Your task to perform on an android device: Show me productivity apps on the Play Store Image 0: 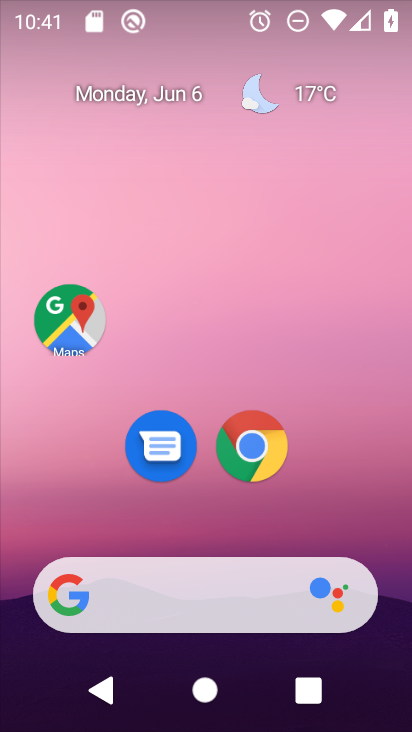
Step 0: drag from (221, 521) to (287, 10)
Your task to perform on an android device: Show me productivity apps on the Play Store Image 1: 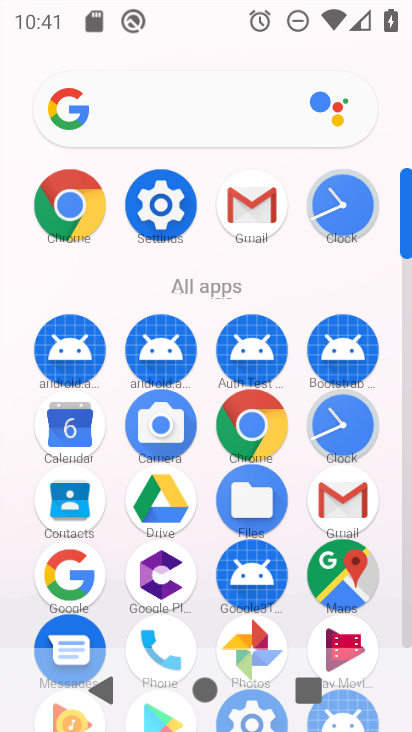
Step 1: drag from (199, 607) to (232, 209)
Your task to perform on an android device: Show me productivity apps on the Play Store Image 2: 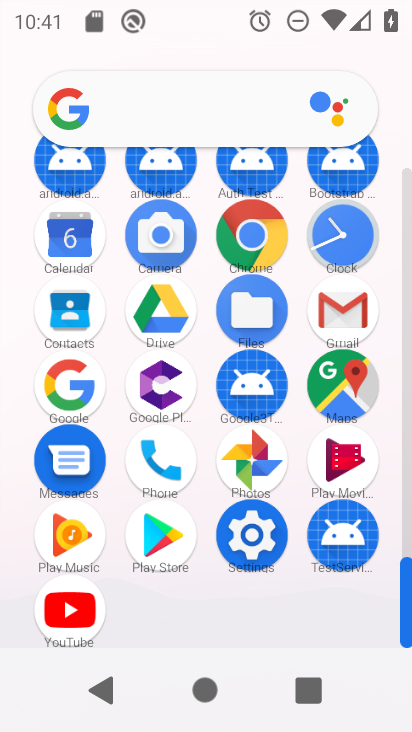
Step 2: click (186, 547)
Your task to perform on an android device: Show me productivity apps on the Play Store Image 3: 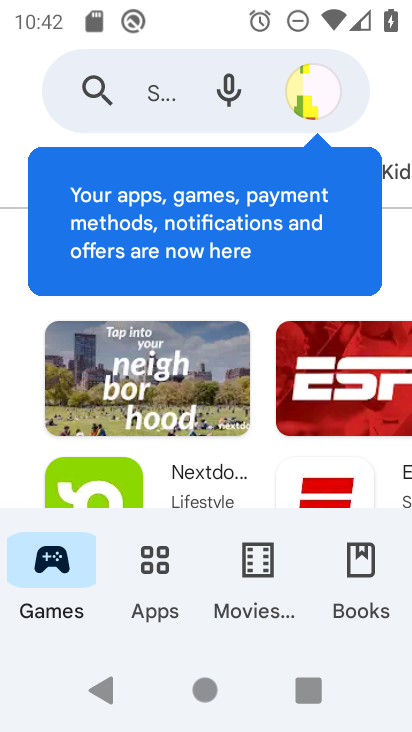
Step 3: click (157, 570)
Your task to perform on an android device: Show me productivity apps on the Play Store Image 4: 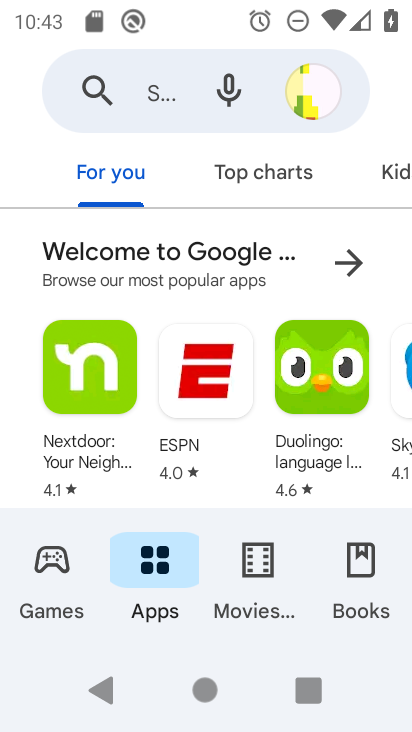
Step 4: click (250, 174)
Your task to perform on an android device: Show me productivity apps on the Play Store Image 5: 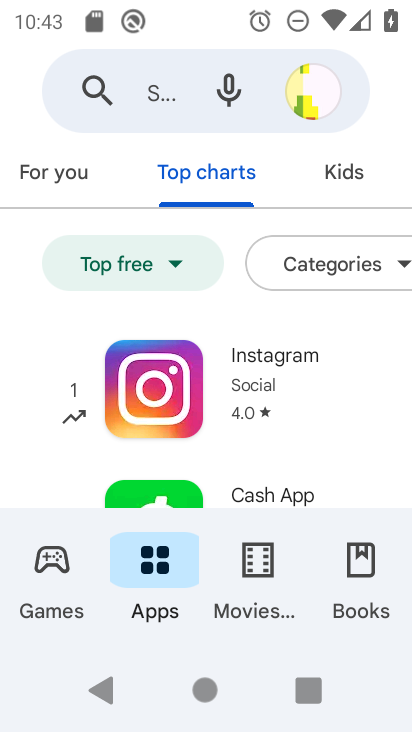
Step 5: click (347, 165)
Your task to perform on an android device: Show me productivity apps on the Play Store Image 6: 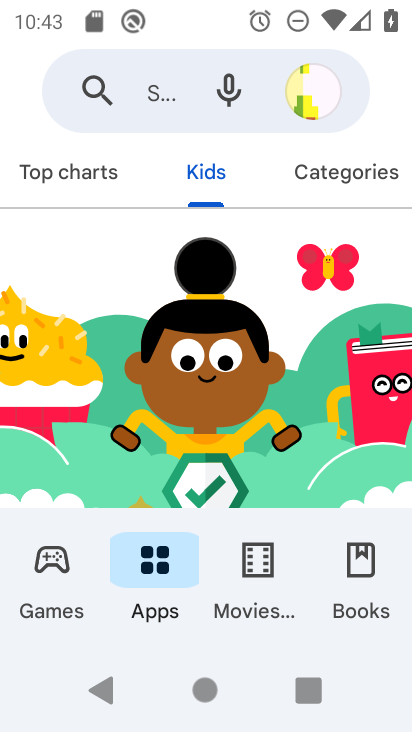
Step 6: click (324, 171)
Your task to perform on an android device: Show me productivity apps on the Play Store Image 7: 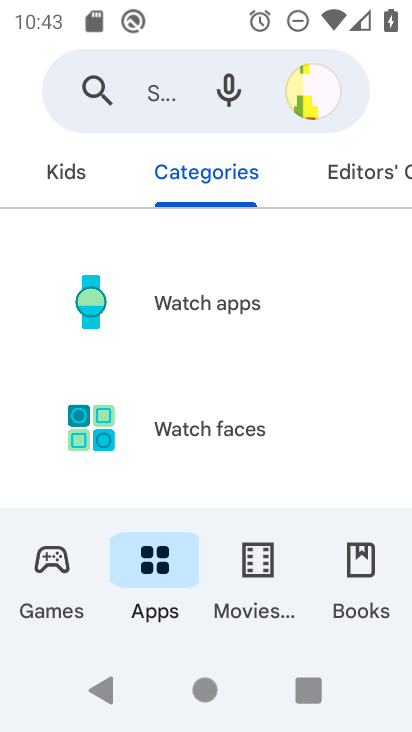
Step 7: drag from (103, 485) to (207, 40)
Your task to perform on an android device: Show me productivity apps on the Play Store Image 8: 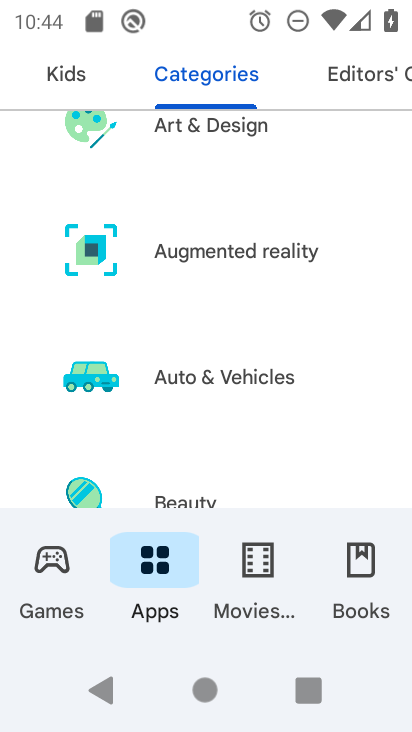
Step 8: drag from (119, 464) to (143, 51)
Your task to perform on an android device: Show me productivity apps on the Play Store Image 9: 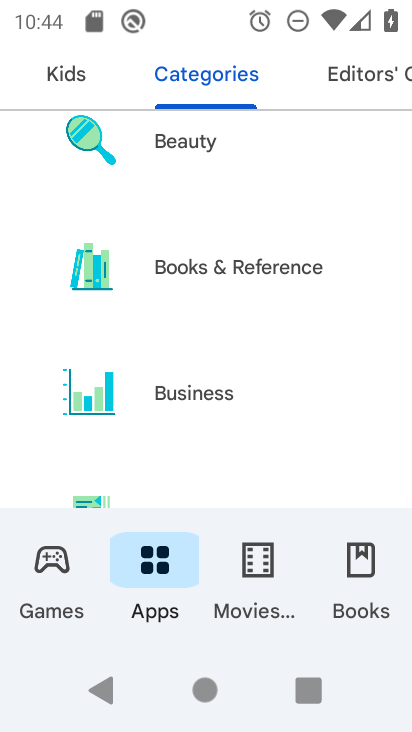
Step 9: drag from (202, 469) to (242, 17)
Your task to perform on an android device: Show me productivity apps on the Play Store Image 10: 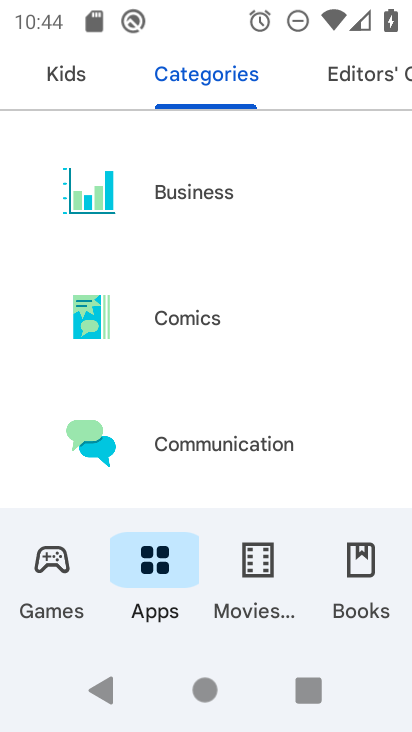
Step 10: drag from (92, 500) to (217, 5)
Your task to perform on an android device: Show me productivity apps on the Play Store Image 11: 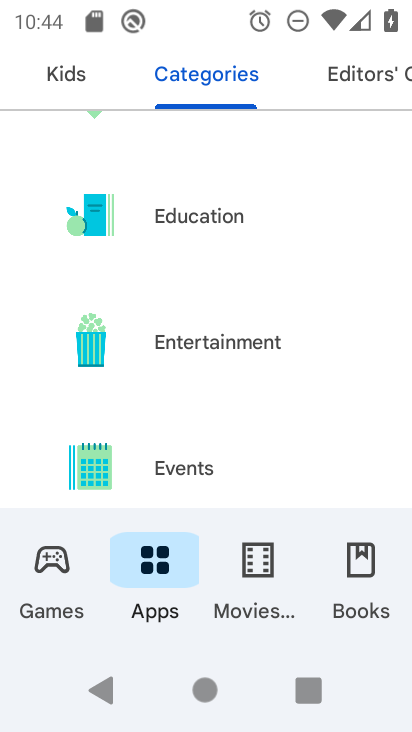
Step 11: drag from (84, 461) to (177, 7)
Your task to perform on an android device: Show me productivity apps on the Play Store Image 12: 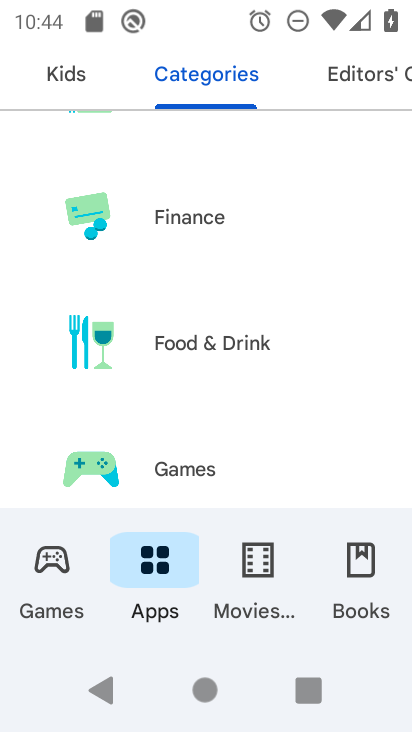
Step 12: drag from (89, 428) to (69, 19)
Your task to perform on an android device: Show me productivity apps on the Play Store Image 13: 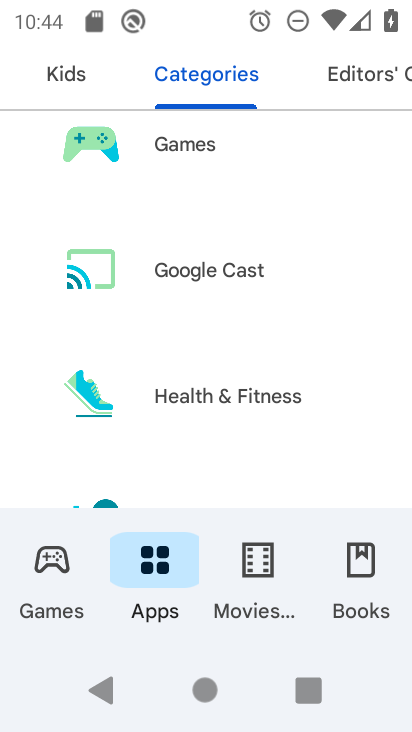
Step 13: drag from (17, 397) to (105, 1)
Your task to perform on an android device: Show me productivity apps on the Play Store Image 14: 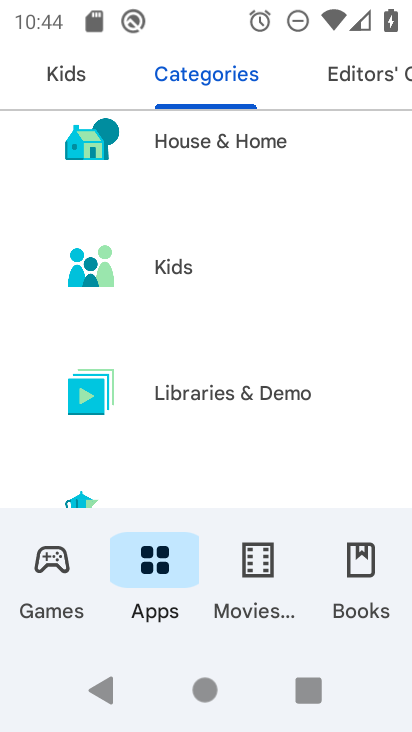
Step 14: drag from (61, 494) to (90, 111)
Your task to perform on an android device: Show me productivity apps on the Play Store Image 15: 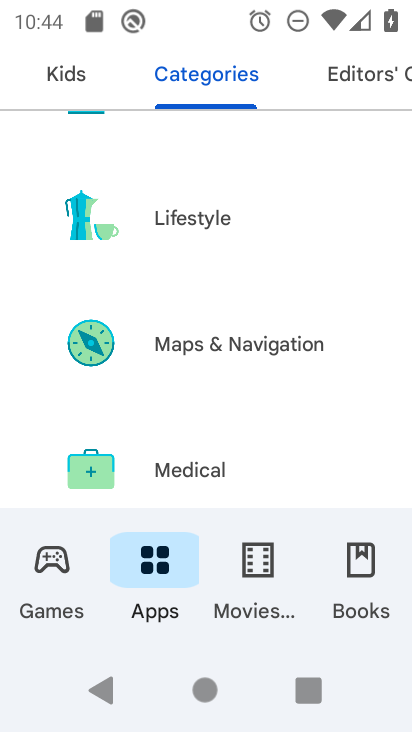
Step 15: drag from (45, 483) to (97, 71)
Your task to perform on an android device: Show me productivity apps on the Play Store Image 16: 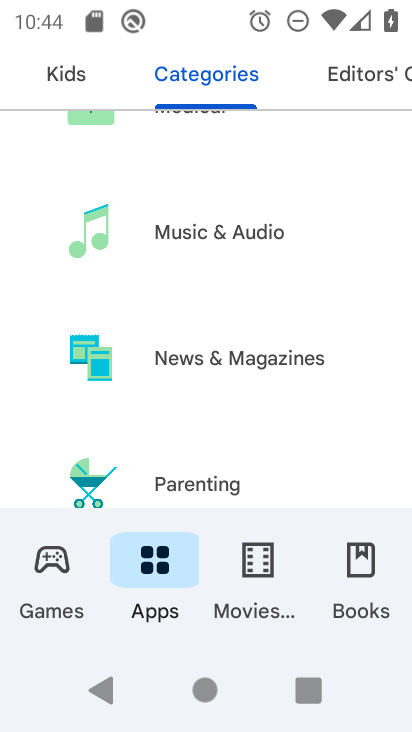
Step 16: drag from (16, 487) to (95, 86)
Your task to perform on an android device: Show me productivity apps on the Play Store Image 17: 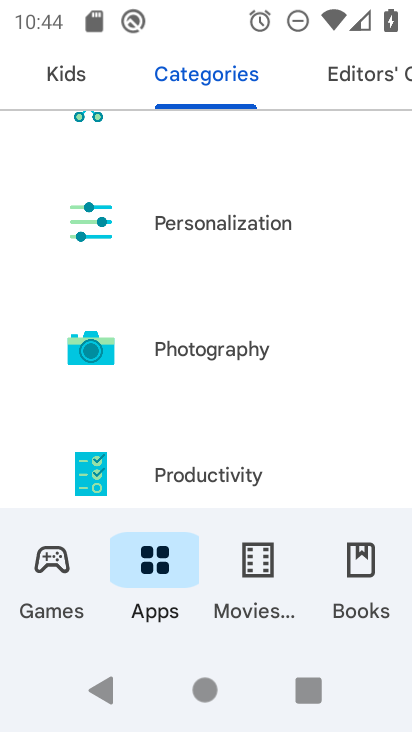
Step 17: click (170, 452)
Your task to perform on an android device: Show me productivity apps on the Play Store Image 18: 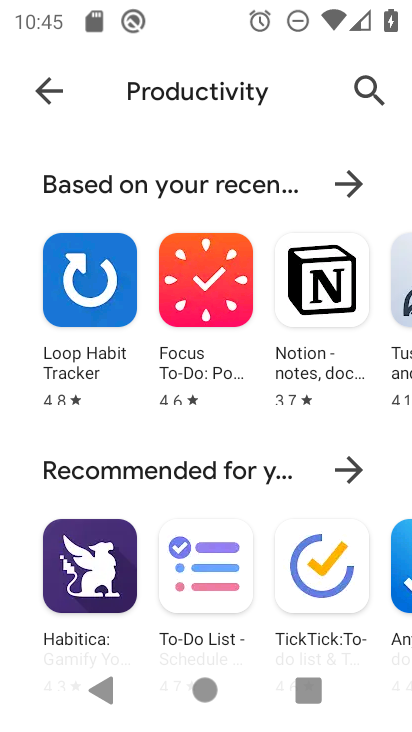
Step 18: task complete